Your task to perform on an android device: Go to CNN.com Image 0: 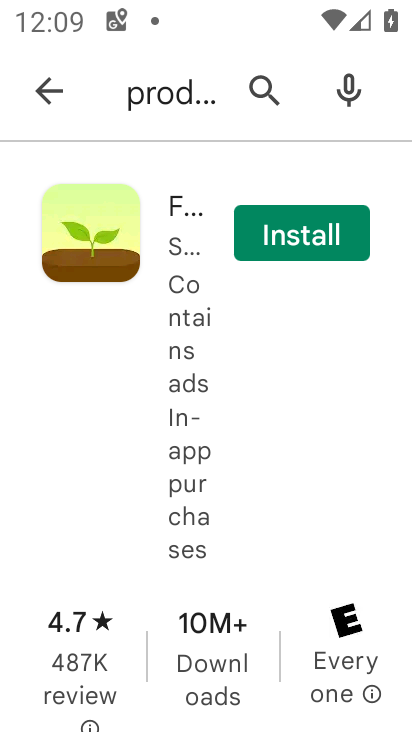
Step 0: press home button
Your task to perform on an android device: Go to CNN.com Image 1: 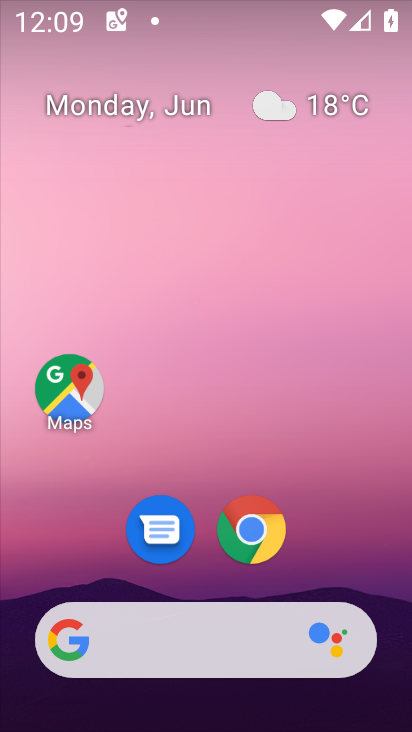
Step 1: drag from (319, 560) to (403, 2)
Your task to perform on an android device: Go to CNN.com Image 2: 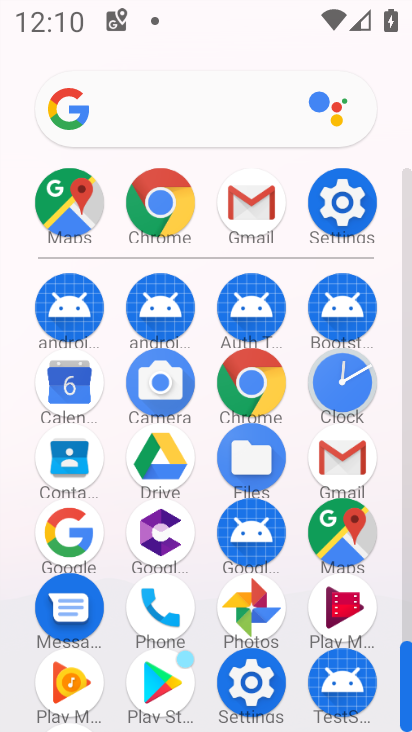
Step 2: click (174, 197)
Your task to perform on an android device: Go to CNN.com Image 3: 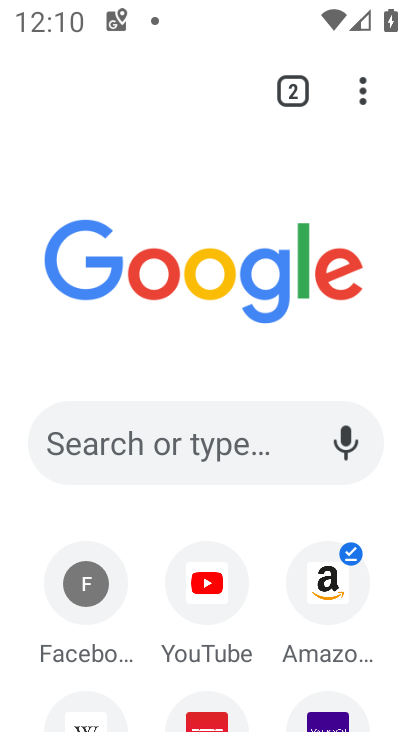
Step 3: drag from (393, 670) to (410, 189)
Your task to perform on an android device: Go to CNN.com Image 4: 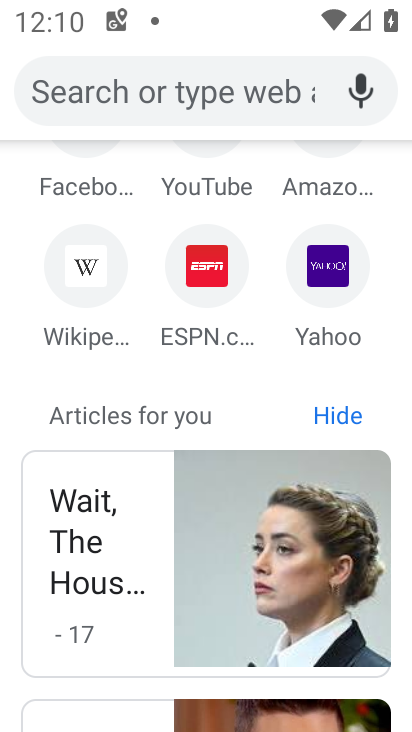
Step 4: drag from (398, 380) to (371, 730)
Your task to perform on an android device: Go to CNN.com Image 5: 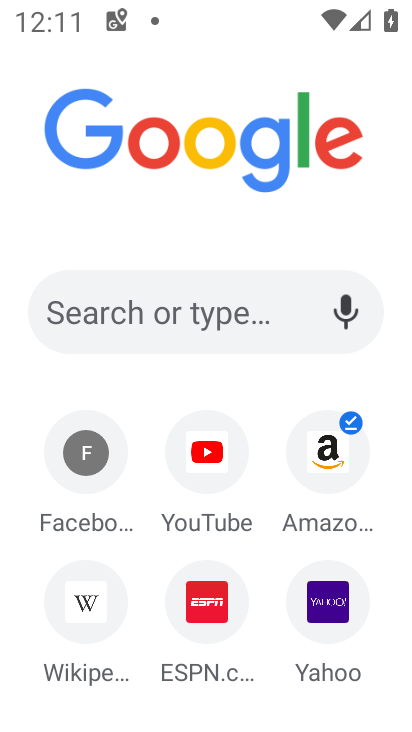
Step 5: drag from (382, 583) to (410, 217)
Your task to perform on an android device: Go to CNN.com Image 6: 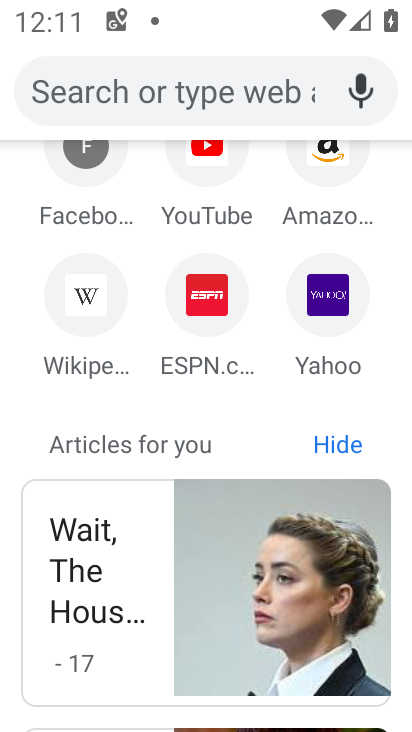
Step 6: drag from (401, 309) to (305, 715)
Your task to perform on an android device: Go to CNN.com Image 7: 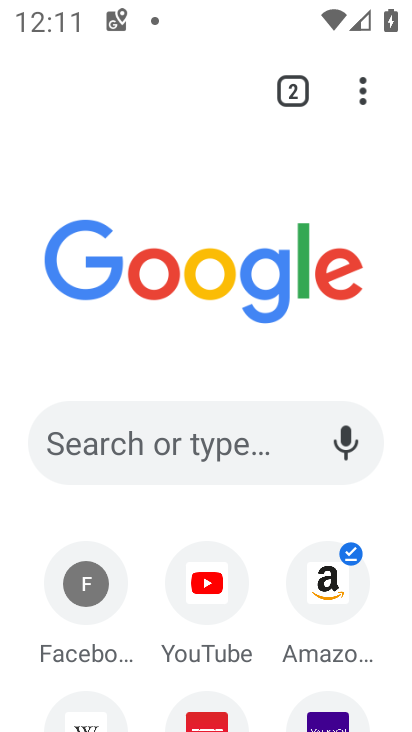
Step 7: click (157, 418)
Your task to perform on an android device: Go to CNN.com Image 8: 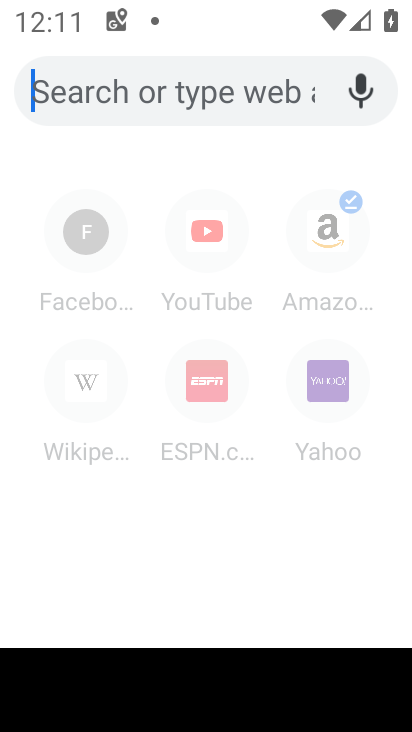
Step 8: type "cnn"
Your task to perform on an android device: Go to CNN.com Image 9: 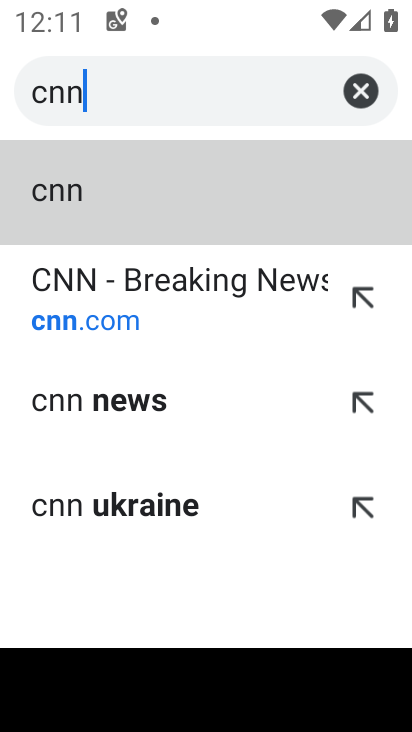
Step 9: click (87, 266)
Your task to perform on an android device: Go to CNN.com Image 10: 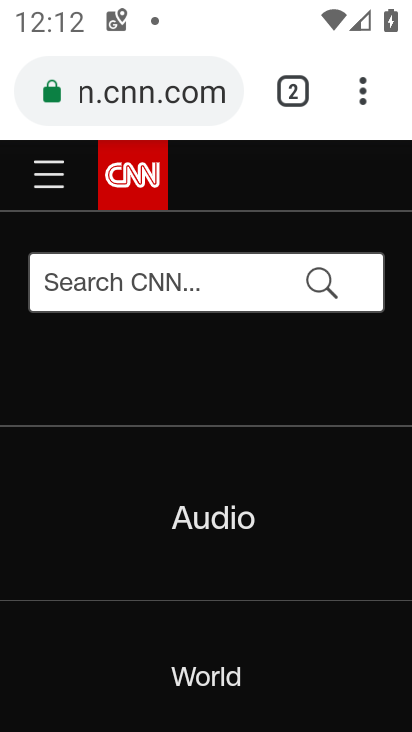
Step 10: task complete